Your task to perform on an android device: toggle airplane mode Image 0: 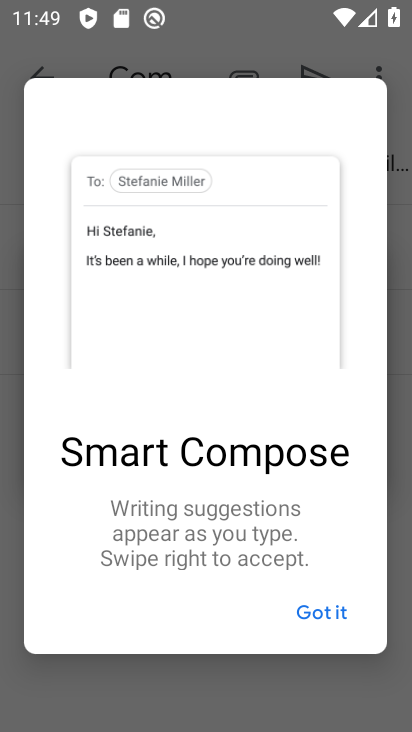
Step 0: press home button
Your task to perform on an android device: toggle airplane mode Image 1: 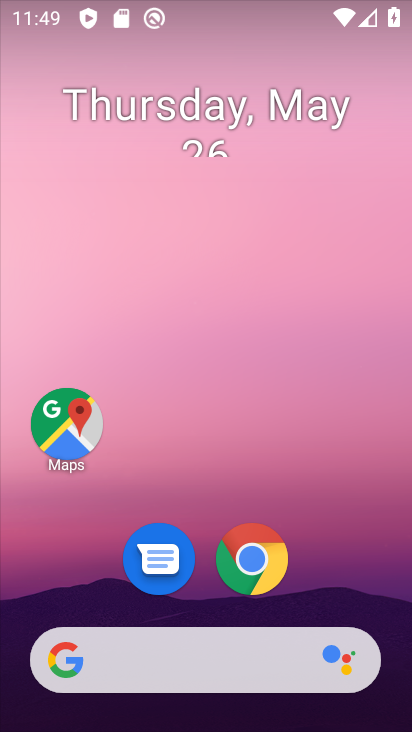
Step 1: drag from (313, 588) to (292, 124)
Your task to perform on an android device: toggle airplane mode Image 2: 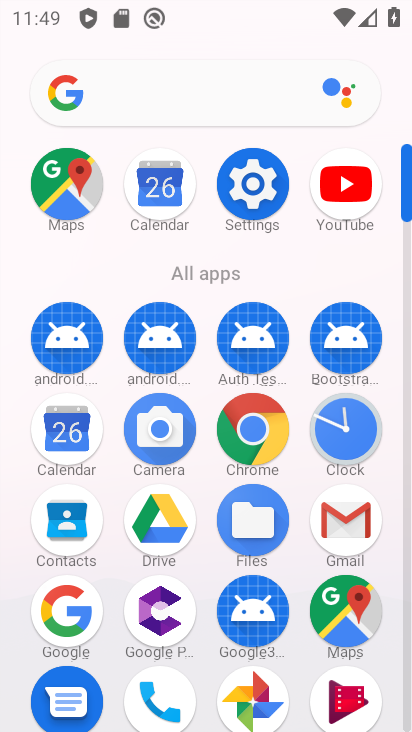
Step 2: click (262, 176)
Your task to perform on an android device: toggle airplane mode Image 3: 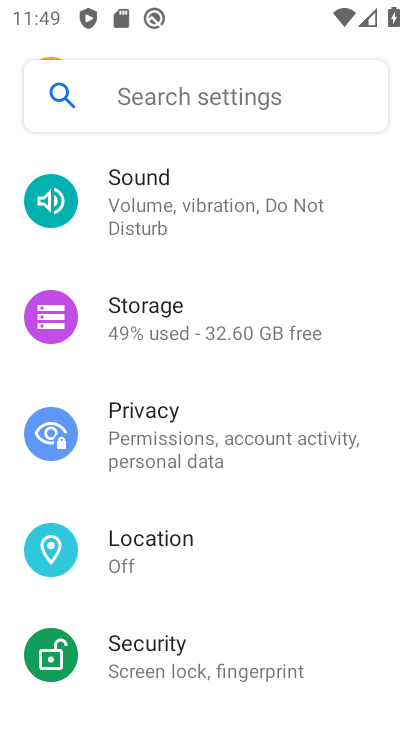
Step 3: drag from (171, 195) to (201, 636)
Your task to perform on an android device: toggle airplane mode Image 4: 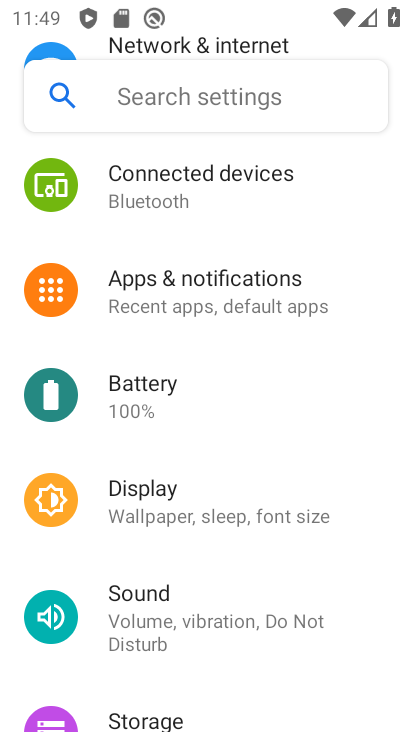
Step 4: drag from (179, 209) to (211, 647)
Your task to perform on an android device: toggle airplane mode Image 5: 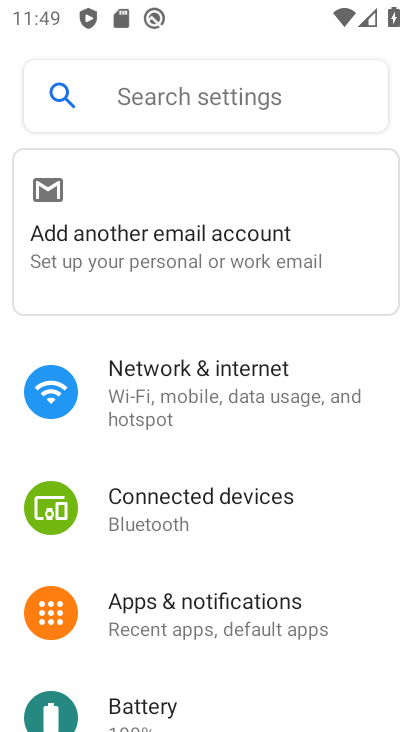
Step 5: click (186, 382)
Your task to perform on an android device: toggle airplane mode Image 6: 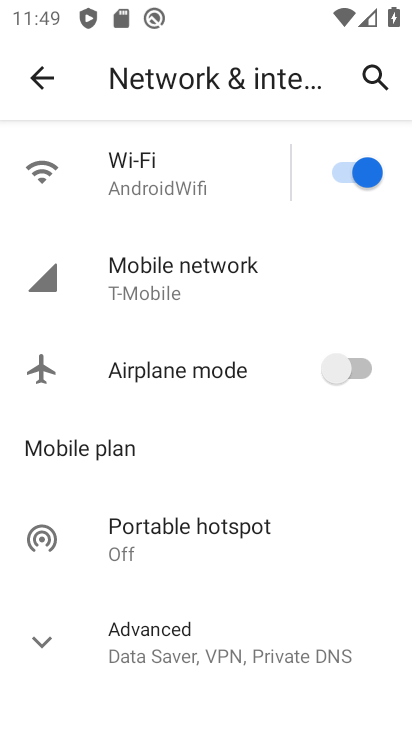
Step 6: click (341, 365)
Your task to perform on an android device: toggle airplane mode Image 7: 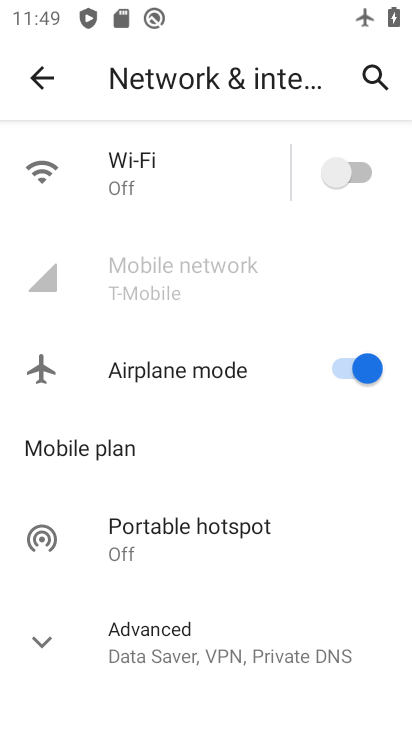
Step 7: task complete